Your task to perform on an android device: clear history in the chrome app Image 0: 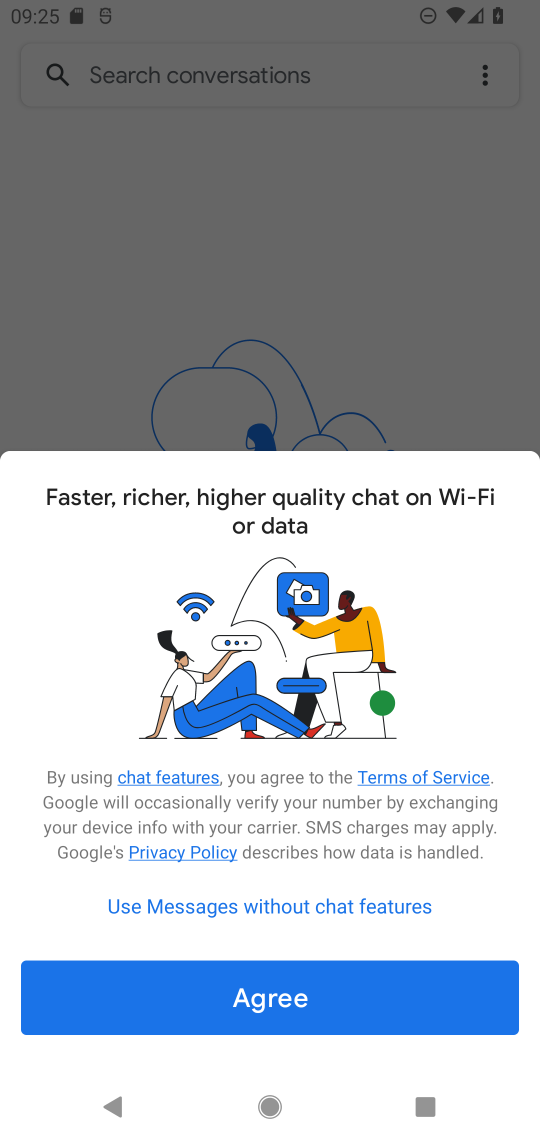
Step 0: press home button
Your task to perform on an android device: clear history in the chrome app Image 1: 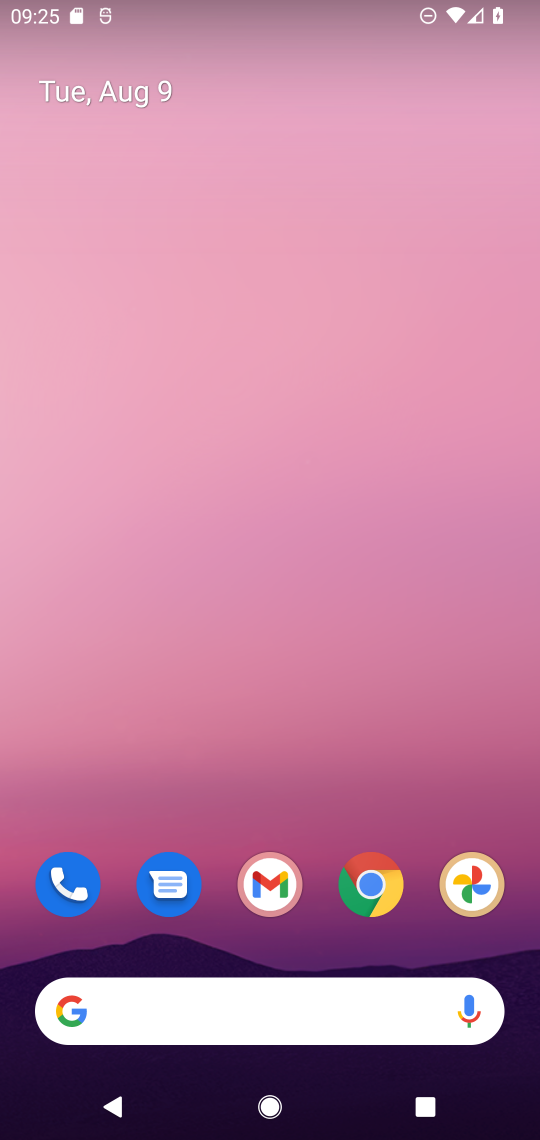
Step 1: drag from (283, 556) to (318, 198)
Your task to perform on an android device: clear history in the chrome app Image 2: 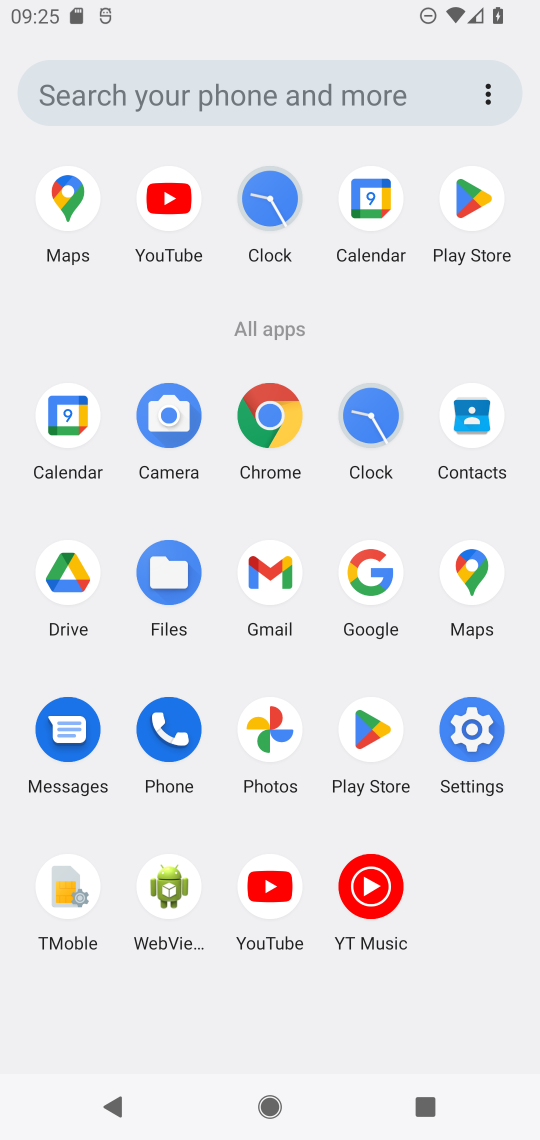
Step 2: click (265, 426)
Your task to perform on an android device: clear history in the chrome app Image 3: 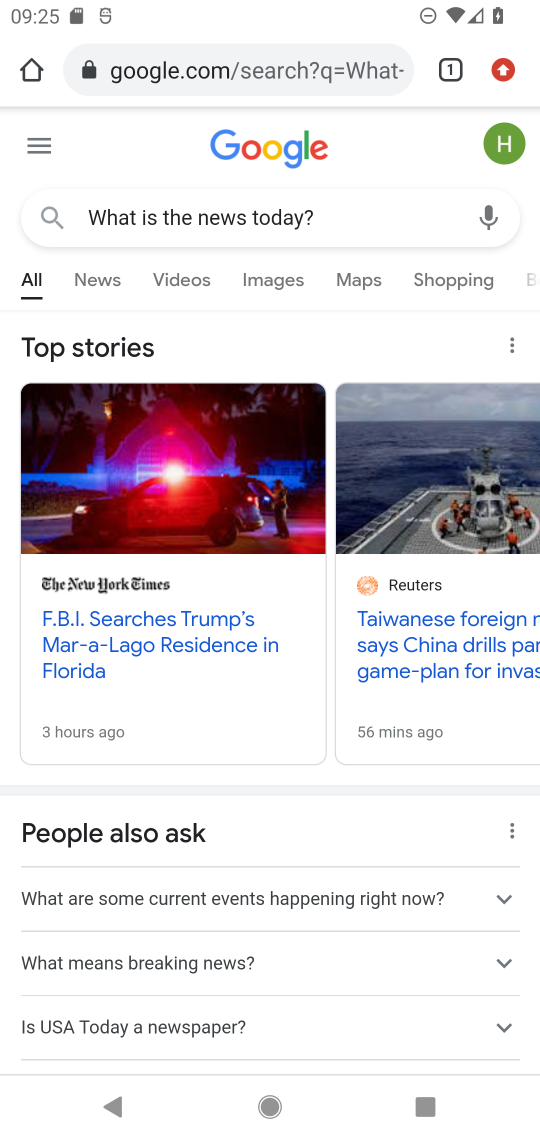
Step 3: click (521, 71)
Your task to perform on an android device: clear history in the chrome app Image 4: 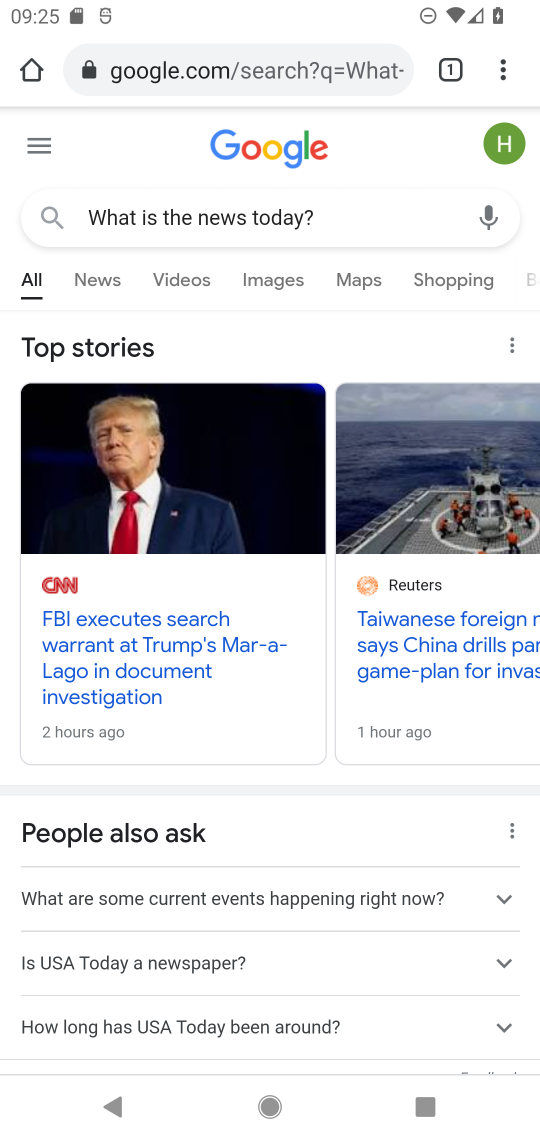
Step 4: click (509, 71)
Your task to perform on an android device: clear history in the chrome app Image 5: 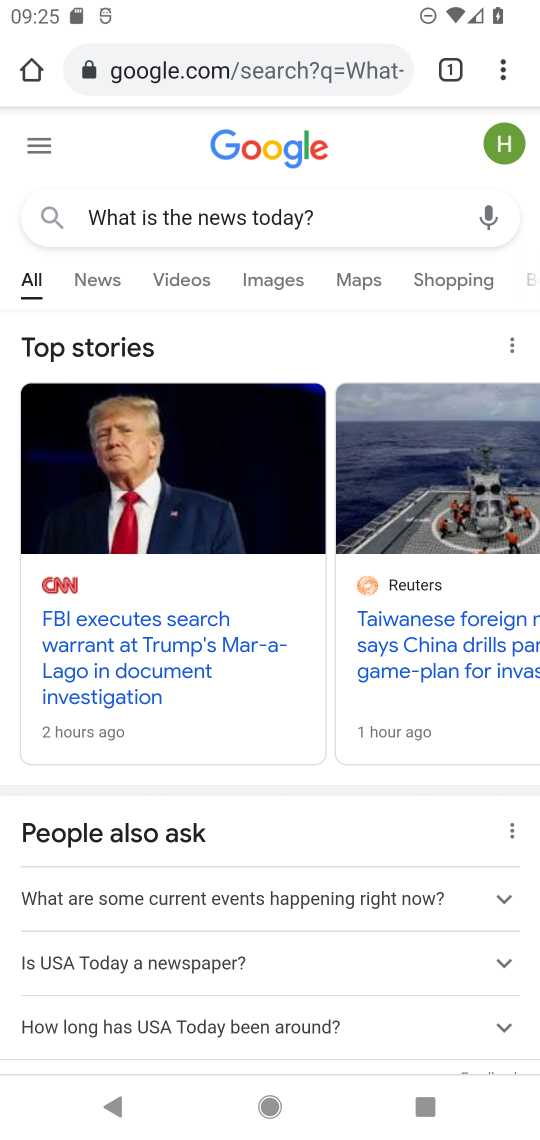
Step 5: click (509, 71)
Your task to perform on an android device: clear history in the chrome app Image 6: 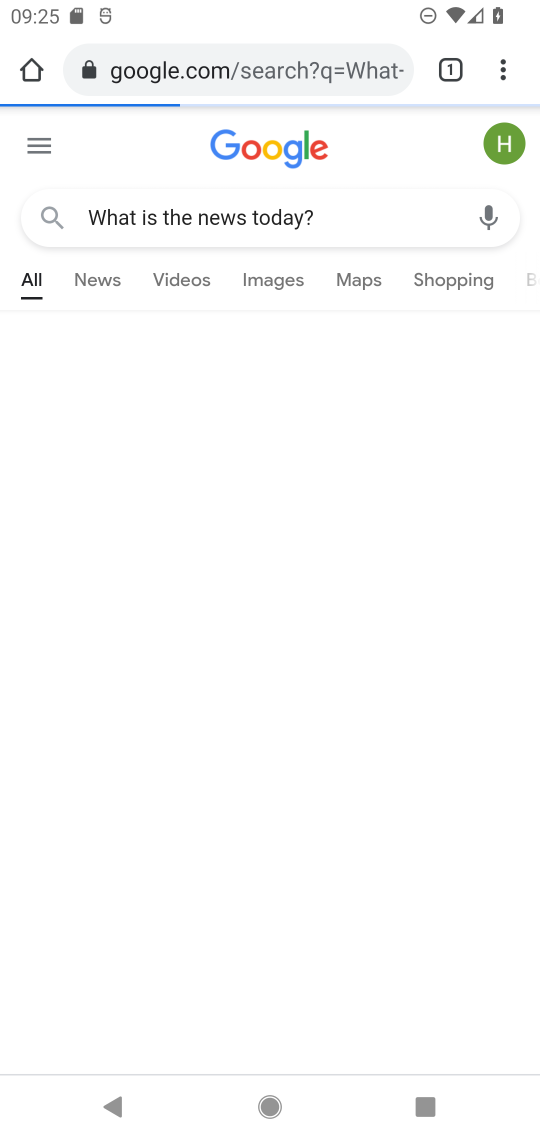
Step 6: click (509, 71)
Your task to perform on an android device: clear history in the chrome app Image 7: 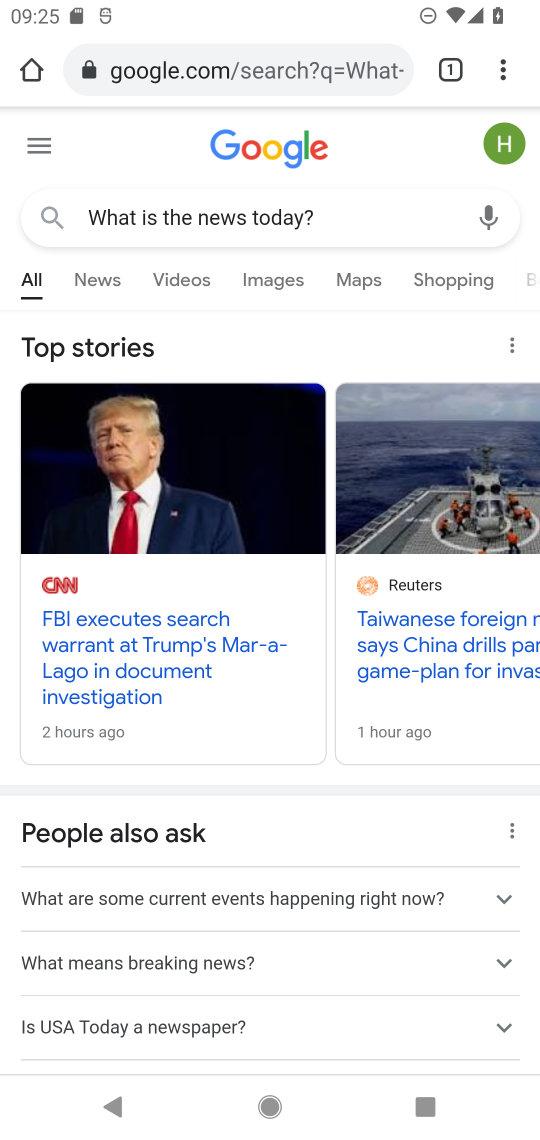
Step 7: click (499, 71)
Your task to perform on an android device: clear history in the chrome app Image 8: 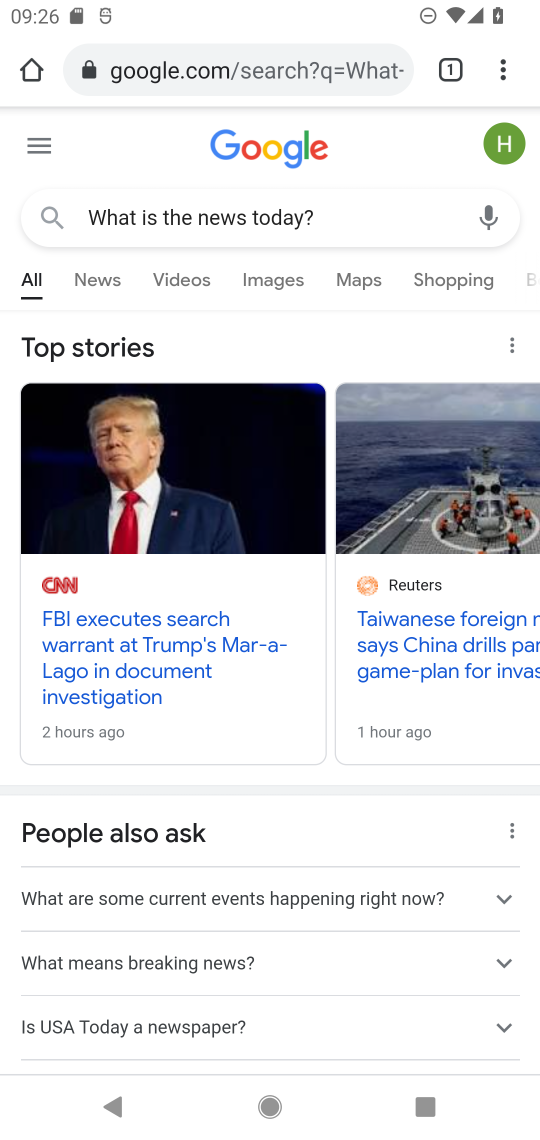
Step 8: click (494, 73)
Your task to perform on an android device: clear history in the chrome app Image 9: 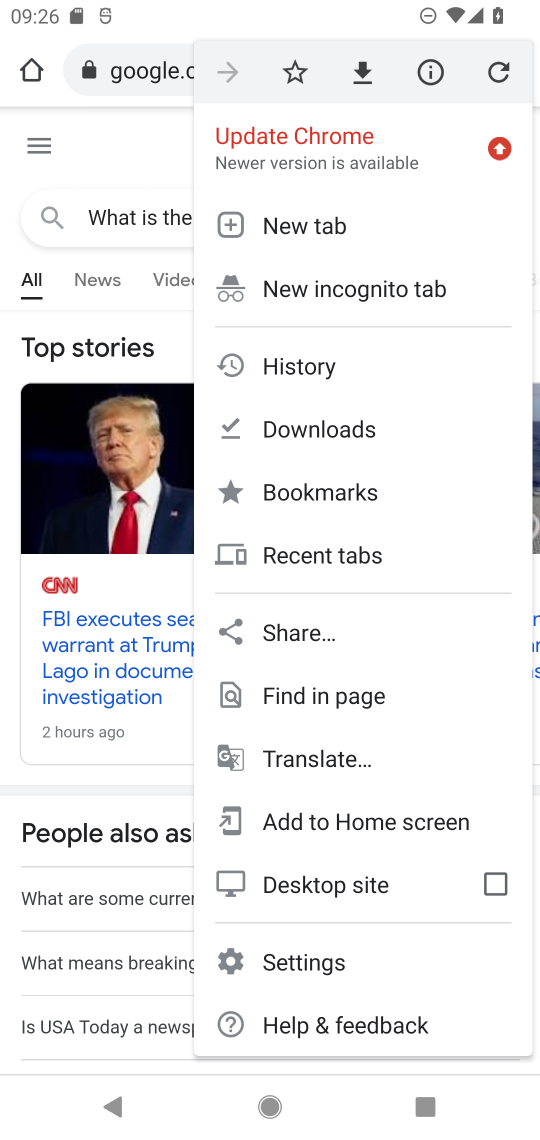
Step 9: click (322, 367)
Your task to perform on an android device: clear history in the chrome app Image 10: 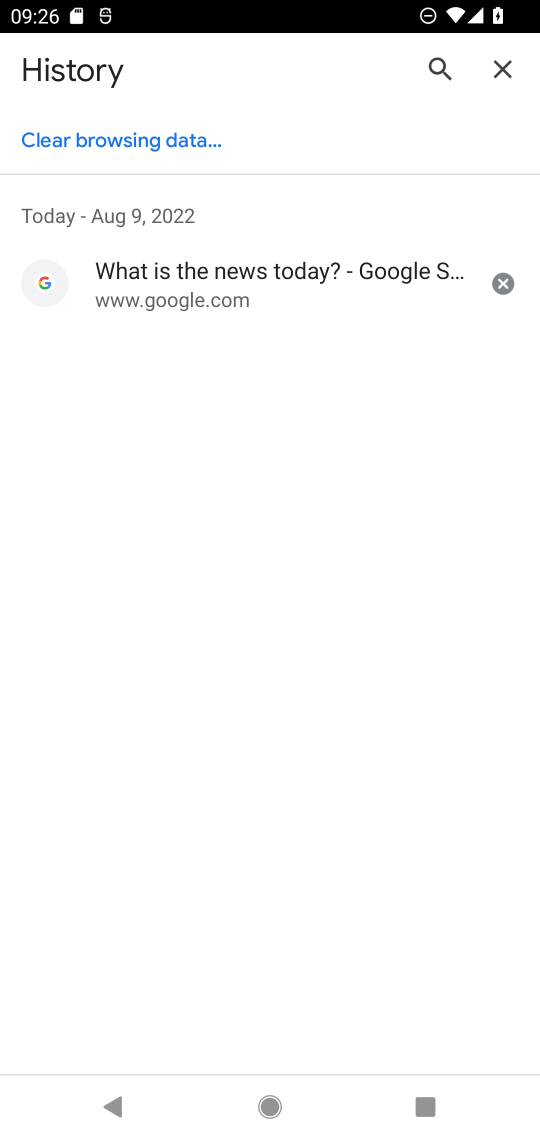
Step 10: click (150, 145)
Your task to perform on an android device: clear history in the chrome app Image 11: 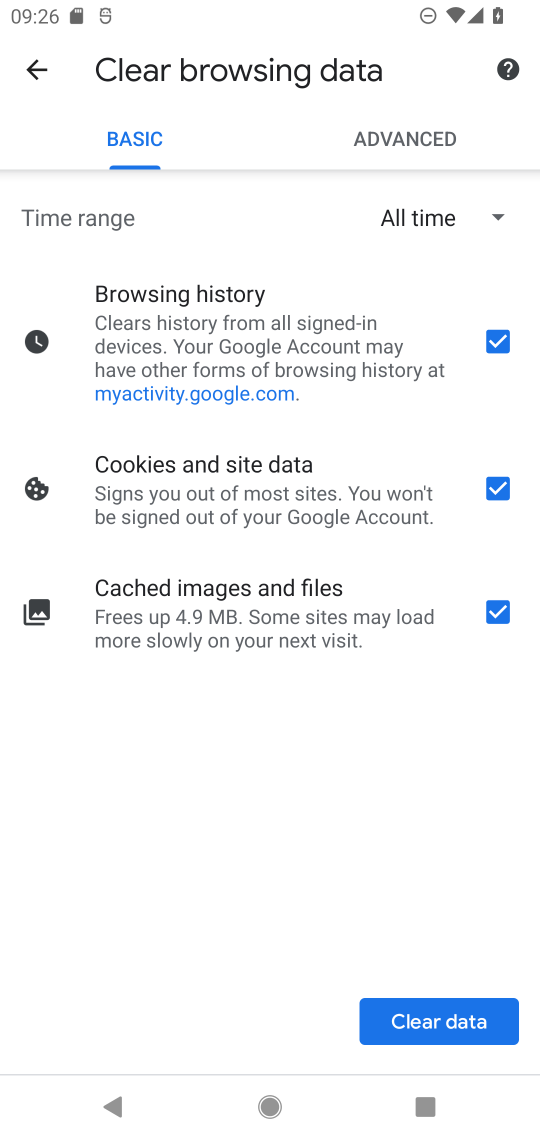
Step 11: click (471, 1014)
Your task to perform on an android device: clear history in the chrome app Image 12: 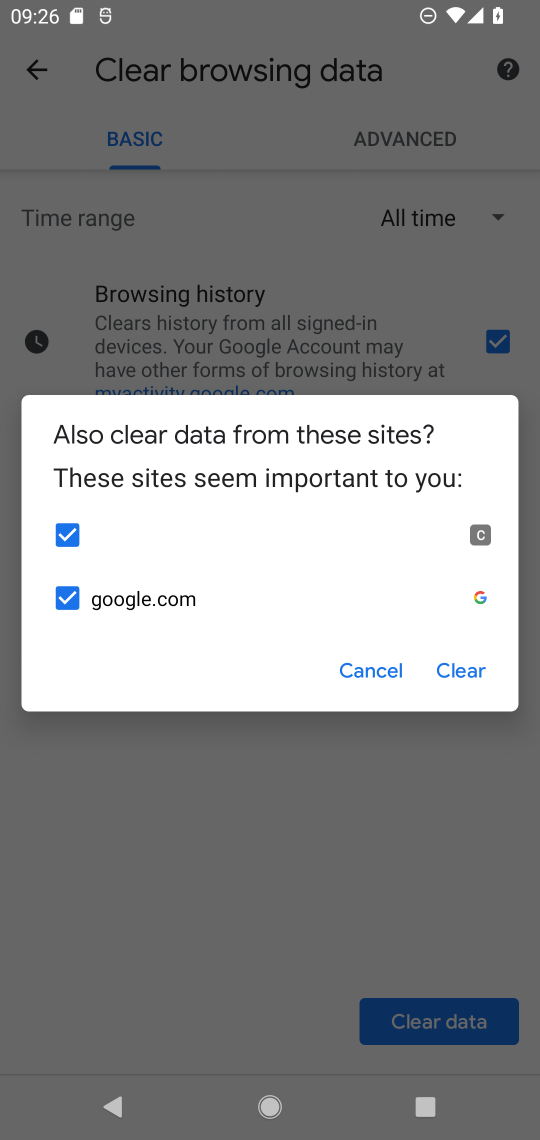
Step 12: click (459, 659)
Your task to perform on an android device: clear history in the chrome app Image 13: 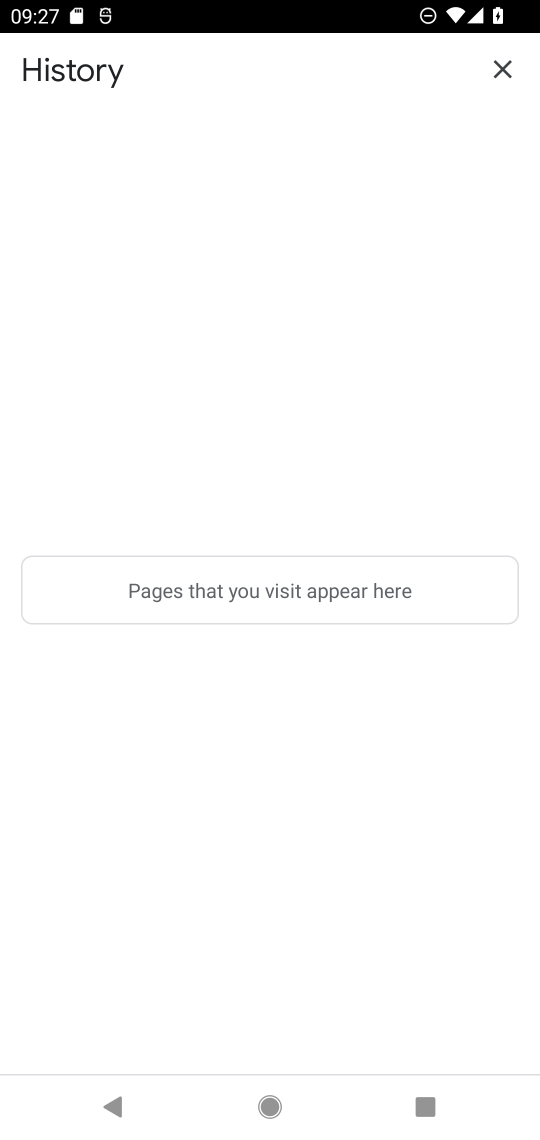
Step 13: task complete